Your task to perform on an android device: turn on data saver in the chrome app Image 0: 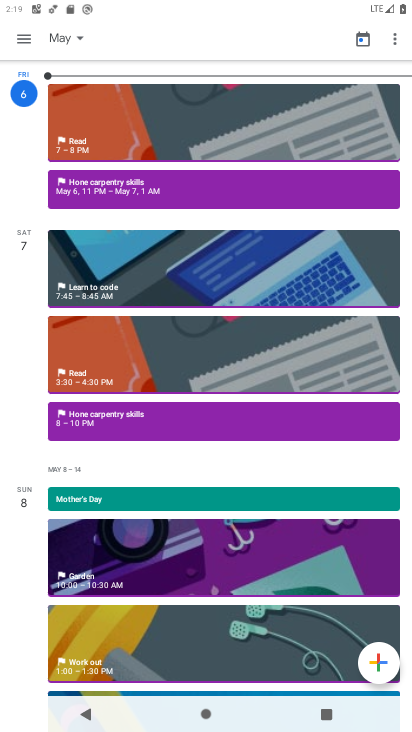
Step 0: press home button
Your task to perform on an android device: turn on data saver in the chrome app Image 1: 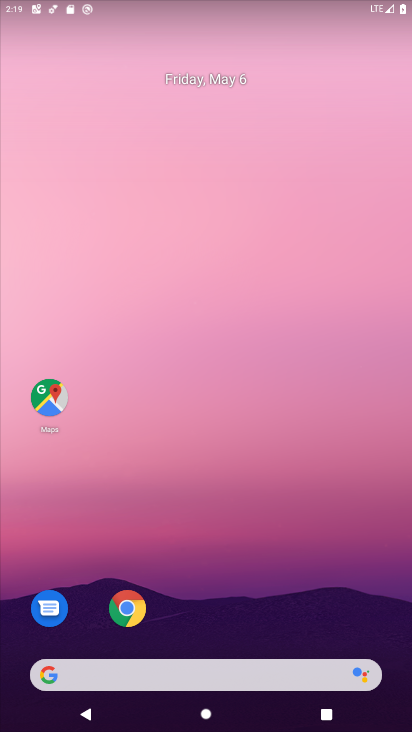
Step 1: click (130, 605)
Your task to perform on an android device: turn on data saver in the chrome app Image 2: 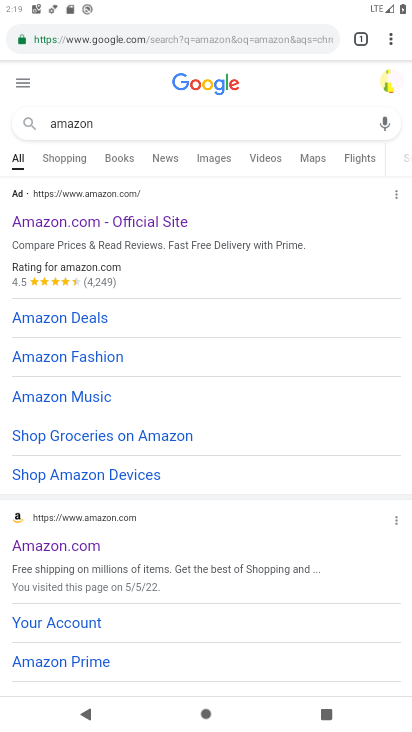
Step 2: click (386, 35)
Your task to perform on an android device: turn on data saver in the chrome app Image 3: 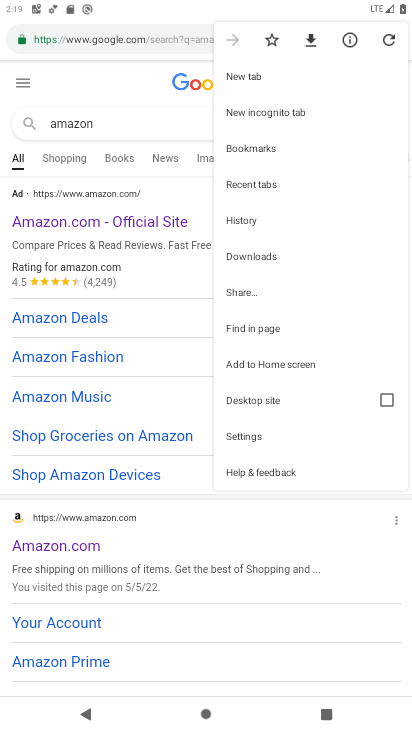
Step 3: click (260, 433)
Your task to perform on an android device: turn on data saver in the chrome app Image 4: 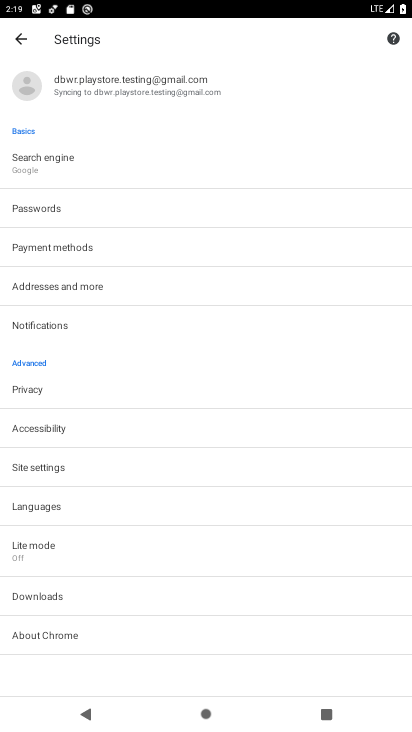
Step 4: click (64, 549)
Your task to perform on an android device: turn on data saver in the chrome app Image 5: 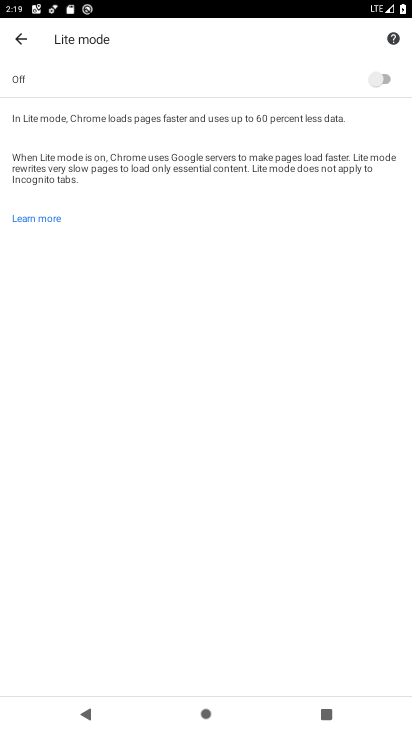
Step 5: click (391, 83)
Your task to perform on an android device: turn on data saver in the chrome app Image 6: 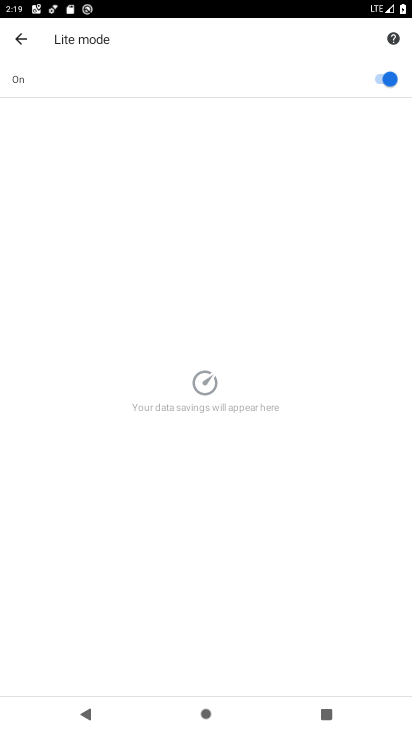
Step 6: task complete